Your task to perform on an android device: toggle sleep mode Image 0: 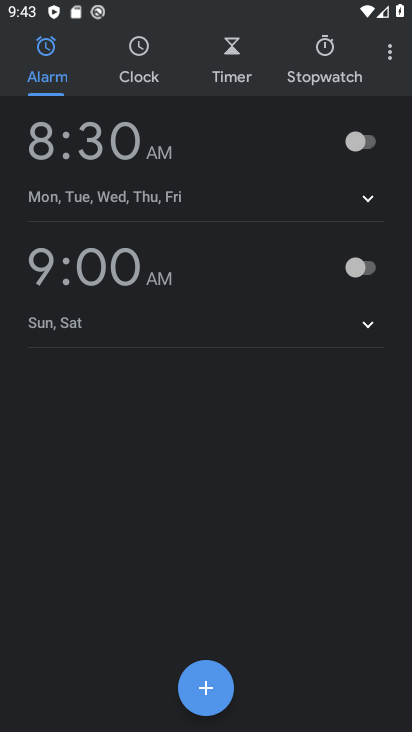
Step 0: press home button
Your task to perform on an android device: toggle sleep mode Image 1: 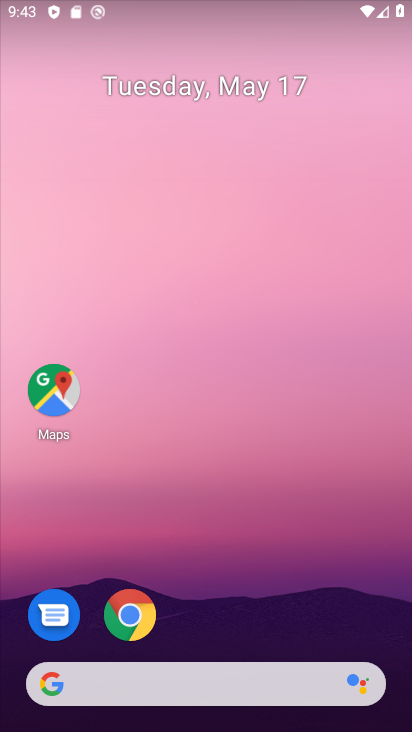
Step 1: drag from (243, 626) to (235, 286)
Your task to perform on an android device: toggle sleep mode Image 2: 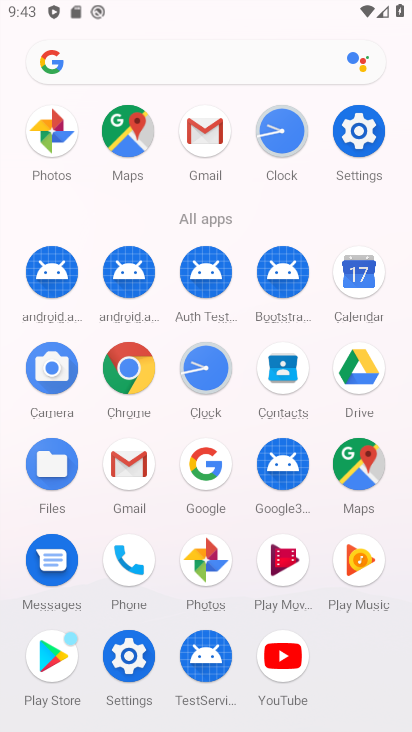
Step 2: click (354, 141)
Your task to perform on an android device: toggle sleep mode Image 3: 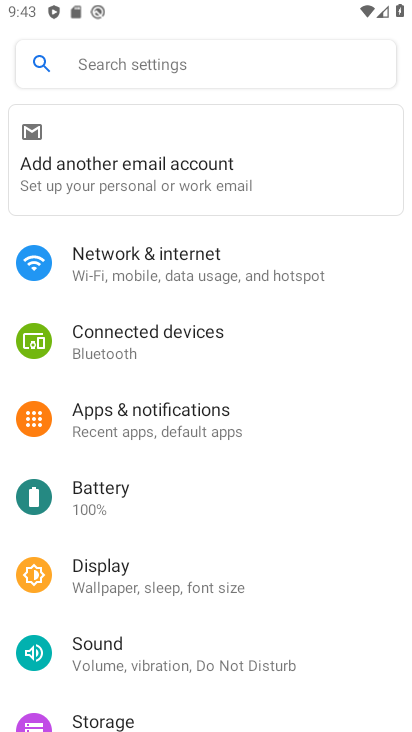
Step 3: task complete